Your task to perform on an android device: Turn off the flashlight Image 0: 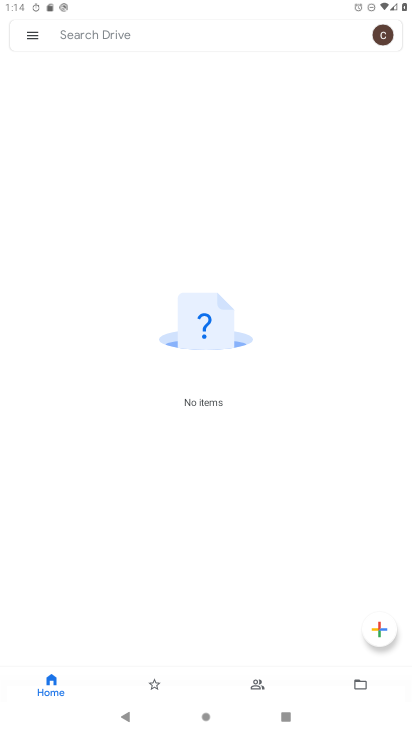
Step 0: press home button
Your task to perform on an android device: Turn off the flashlight Image 1: 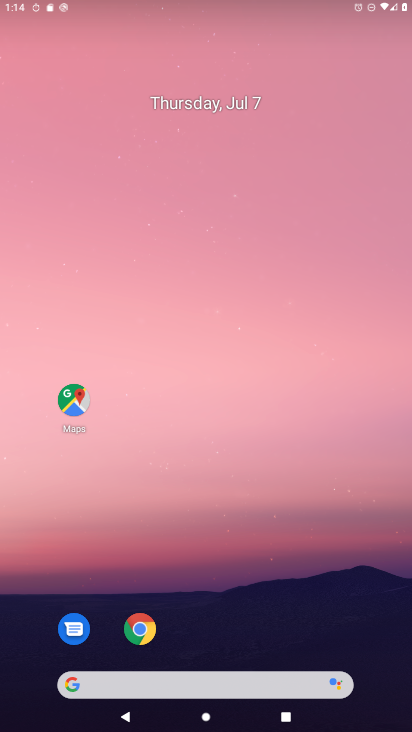
Step 1: drag from (220, 597) to (220, 139)
Your task to perform on an android device: Turn off the flashlight Image 2: 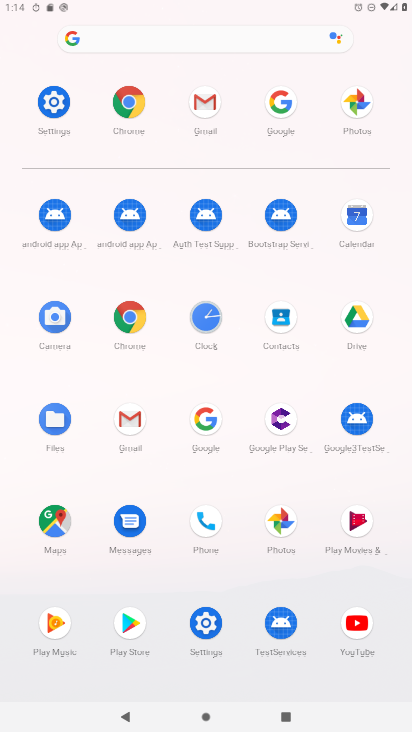
Step 2: click (46, 122)
Your task to perform on an android device: Turn off the flashlight Image 3: 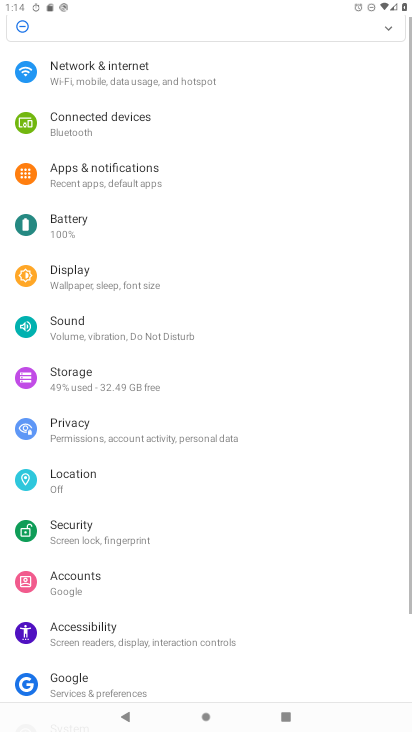
Step 3: task complete